Your task to perform on an android device: check android version Image 0: 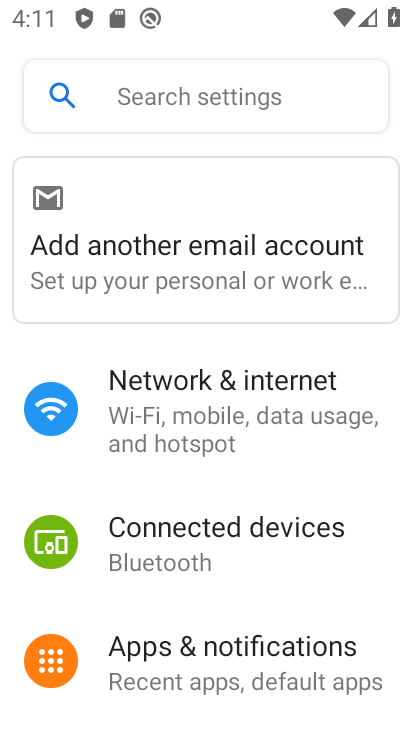
Step 0: press home button
Your task to perform on an android device: check android version Image 1: 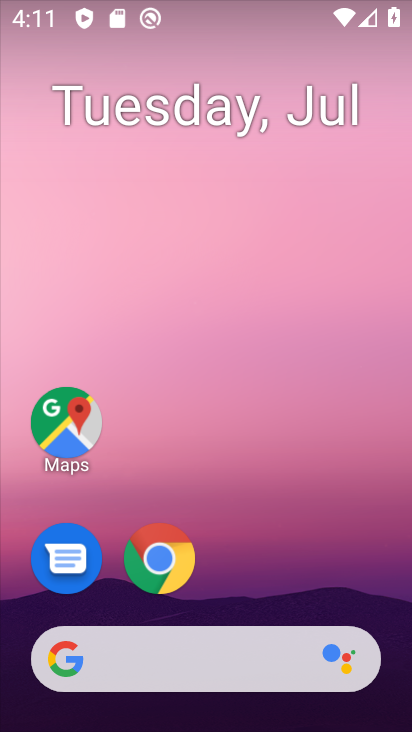
Step 1: drag from (245, 615) to (304, 256)
Your task to perform on an android device: check android version Image 2: 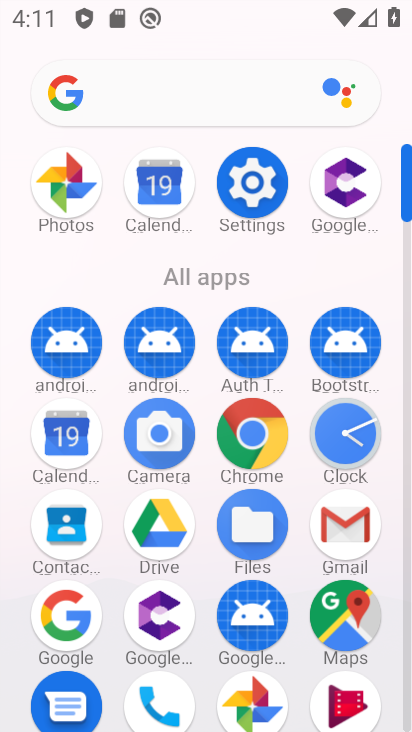
Step 2: click (255, 184)
Your task to perform on an android device: check android version Image 3: 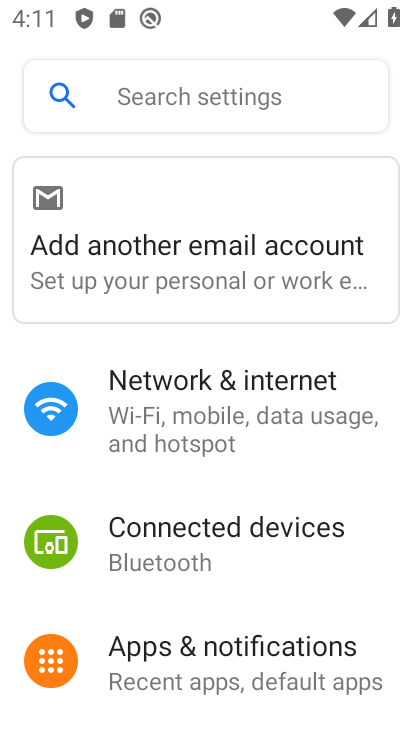
Step 3: drag from (188, 552) to (247, 307)
Your task to perform on an android device: check android version Image 4: 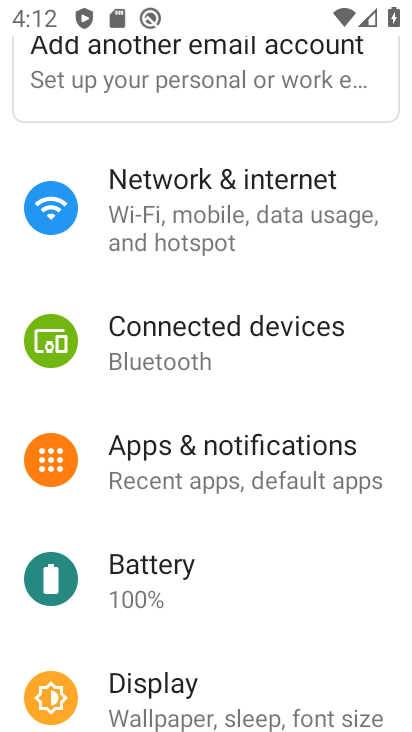
Step 4: drag from (243, 586) to (308, 167)
Your task to perform on an android device: check android version Image 5: 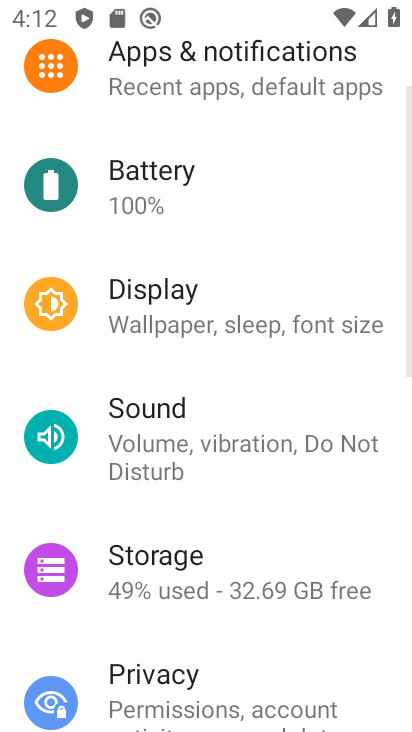
Step 5: drag from (220, 603) to (299, 173)
Your task to perform on an android device: check android version Image 6: 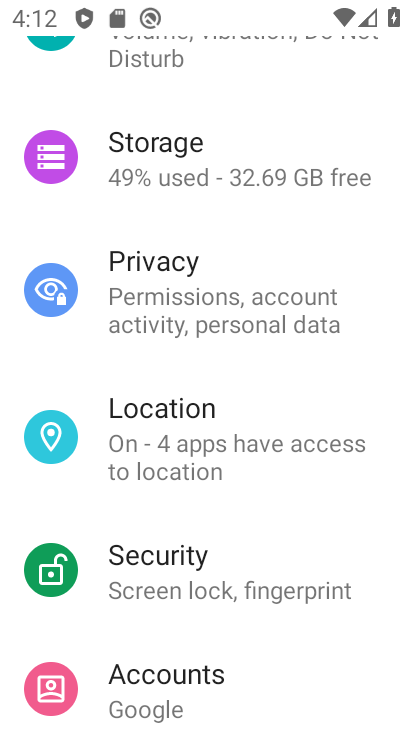
Step 6: drag from (224, 601) to (256, 254)
Your task to perform on an android device: check android version Image 7: 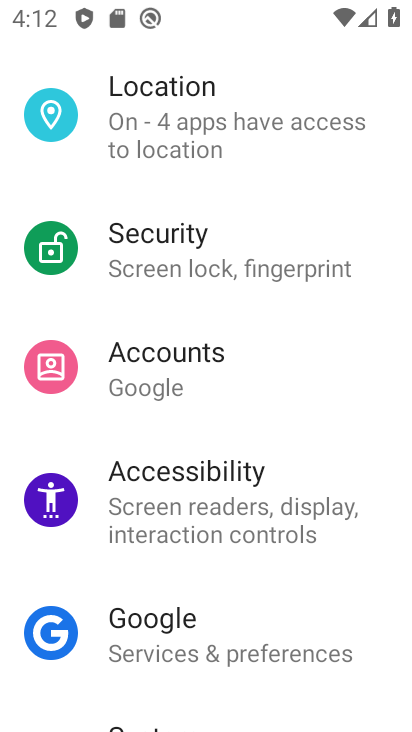
Step 7: drag from (227, 577) to (255, 278)
Your task to perform on an android device: check android version Image 8: 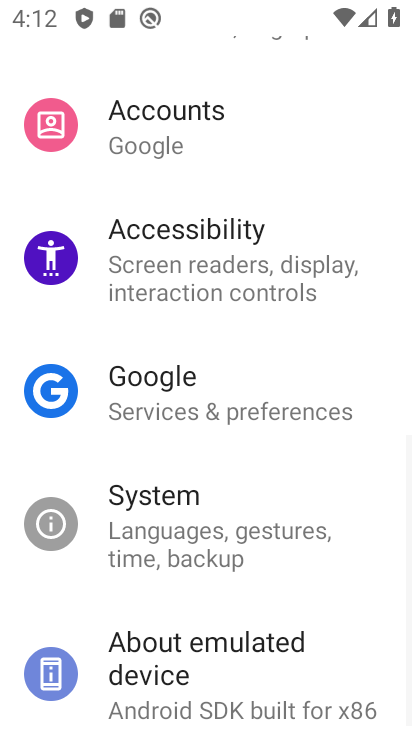
Step 8: drag from (209, 616) to (265, 229)
Your task to perform on an android device: check android version Image 9: 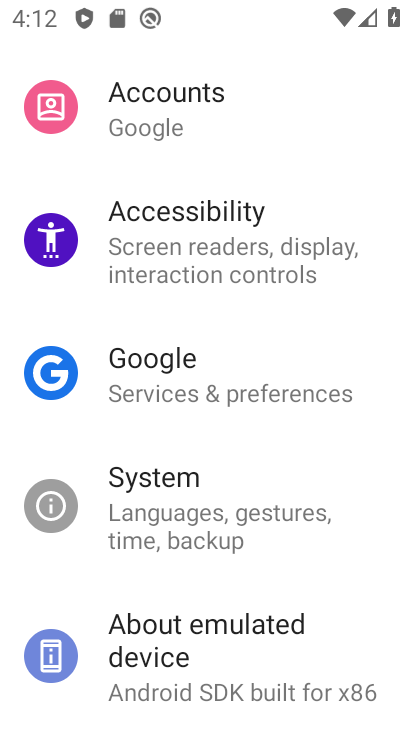
Step 9: click (231, 672)
Your task to perform on an android device: check android version Image 10: 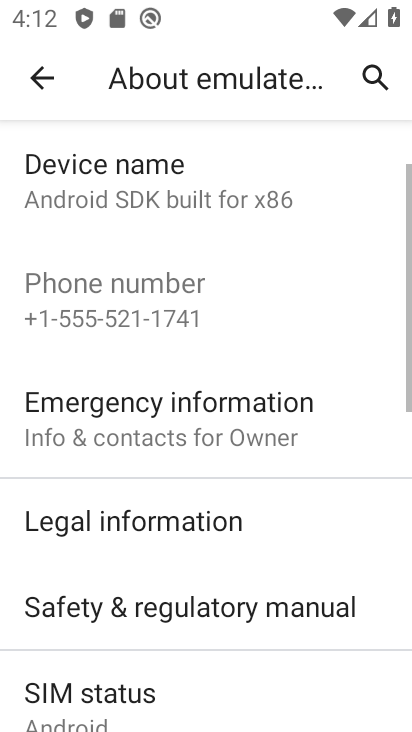
Step 10: drag from (261, 570) to (290, 336)
Your task to perform on an android device: check android version Image 11: 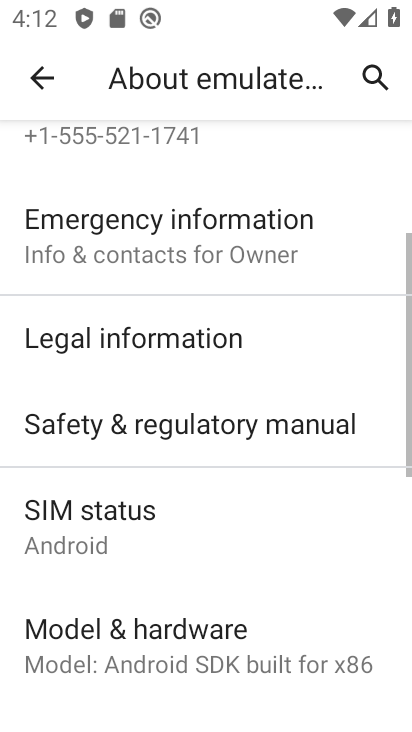
Step 11: drag from (203, 642) to (252, 324)
Your task to perform on an android device: check android version Image 12: 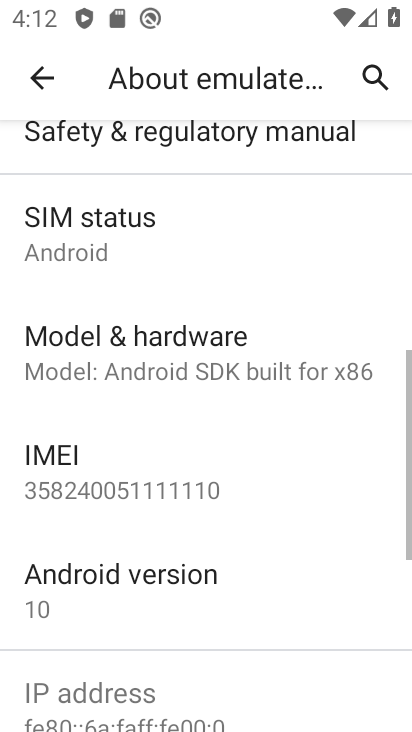
Step 12: click (148, 589)
Your task to perform on an android device: check android version Image 13: 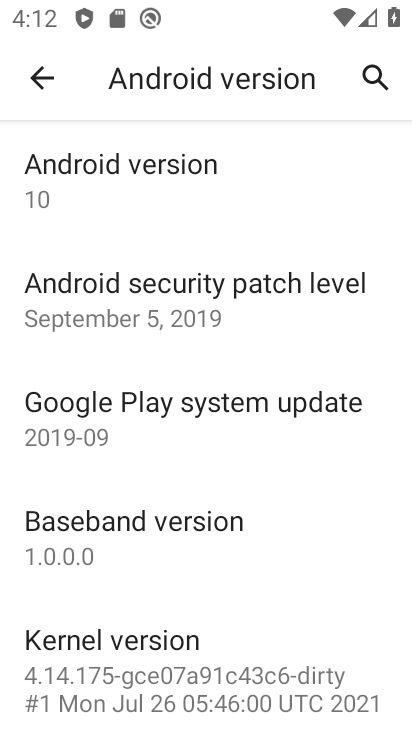
Step 13: task complete